Your task to perform on an android device: manage bookmarks in the chrome app Image 0: 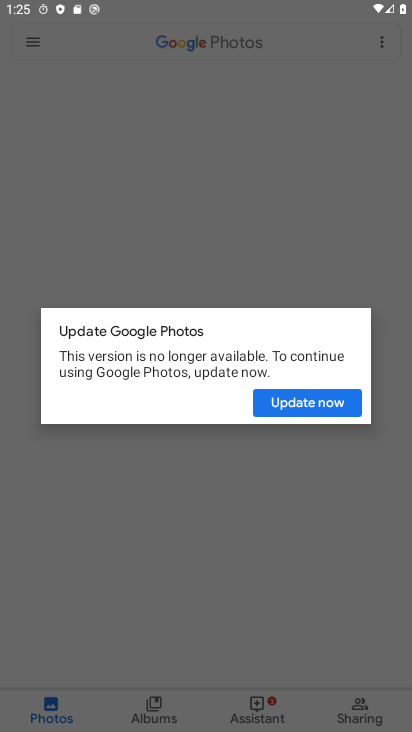
Step 0: press home button
Your task to perform on an android device: manage bookmarks in the chrome app Image 1: 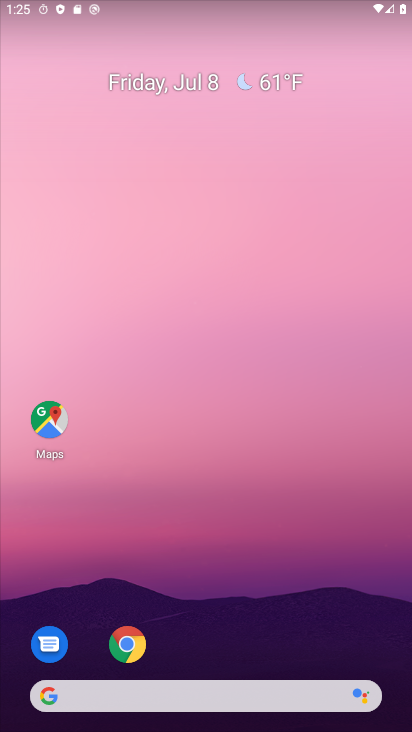
Step 1: click (136, 645)
Your task to perform on an android device: manage bookmarks in the chrome app Image 2: 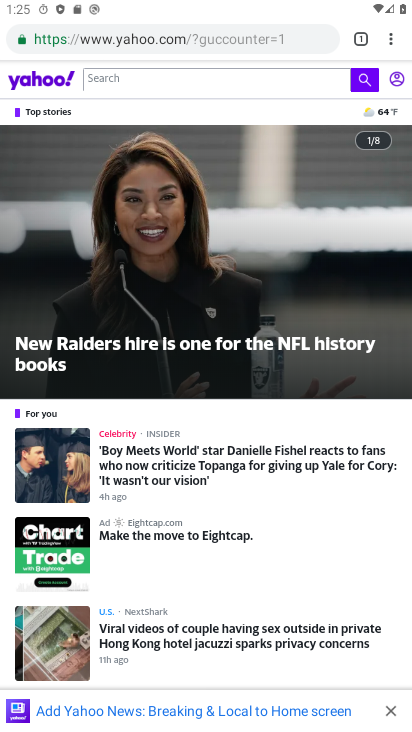
Step 2: click (391, 41)
Your task to perform on an android device: manage bookmarks in the chrome app Image 3: 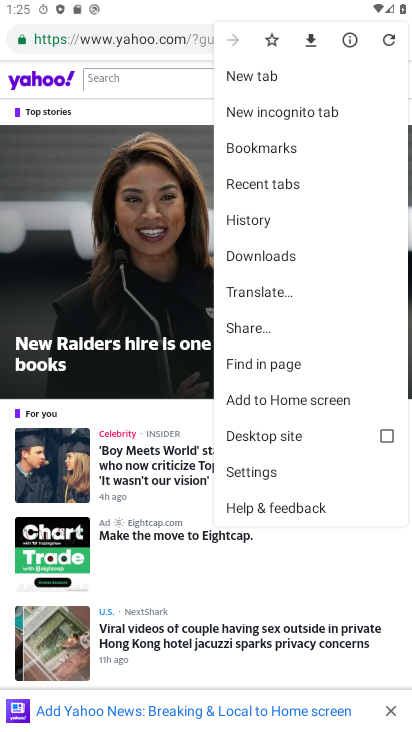
Step 3: click (265, 473)
Your task to perform on an android device: manage bookmarks in the chrome app Image 4: 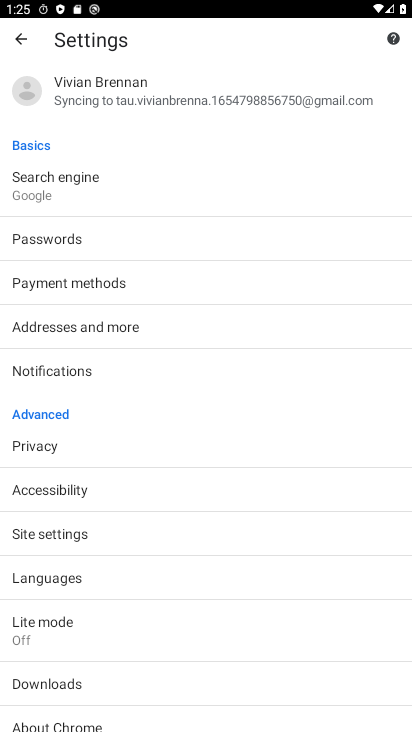
Step 4: click (22, 40)
Your task to perform on an android device: manage bookmarks in the chrome app Image 5: 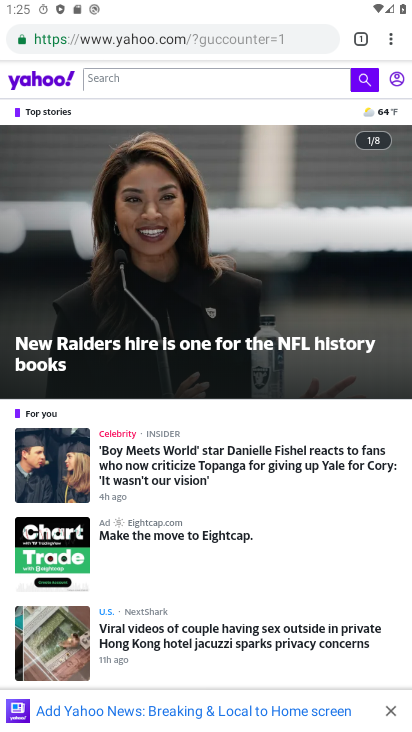
Step 5: click (391, 35)
Your task to perform on an android device: manage bookmarks in the chrome app Image 6: 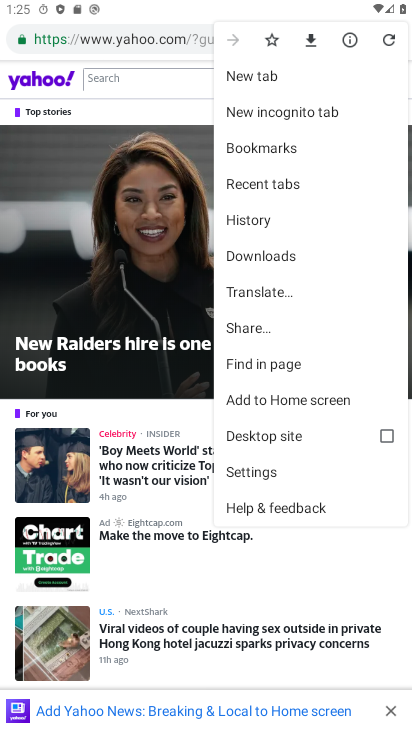
Step 6: click (304, 151)
Your task to perform on an android device: manage bookmarks in the chrome app Image 7: 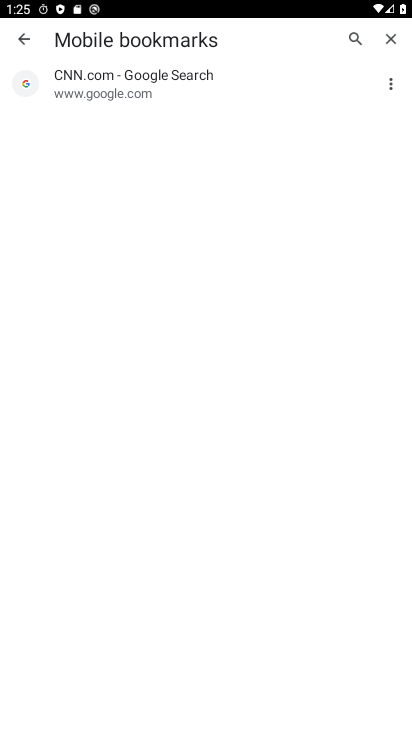
Step 7: click (391, 83)
Your task to perform on an android device: manage bookmarks in the chrome app Image 8: 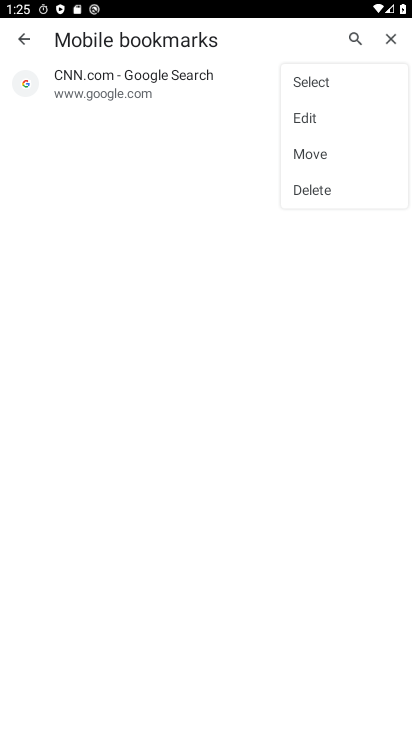
Step 8: click (321, 122)
Your task to perform on an android device: manage bookmarks in the chrome app Image 9: 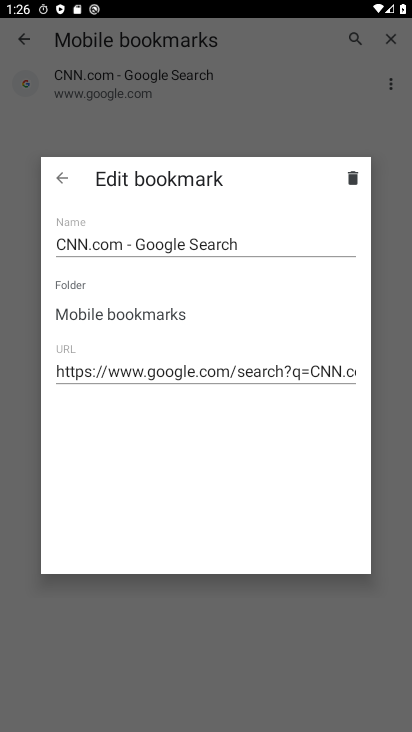
Step 9: click (253, 240)
Your task to perform on an android device: manage bookmarks in the chrome app Image 10: 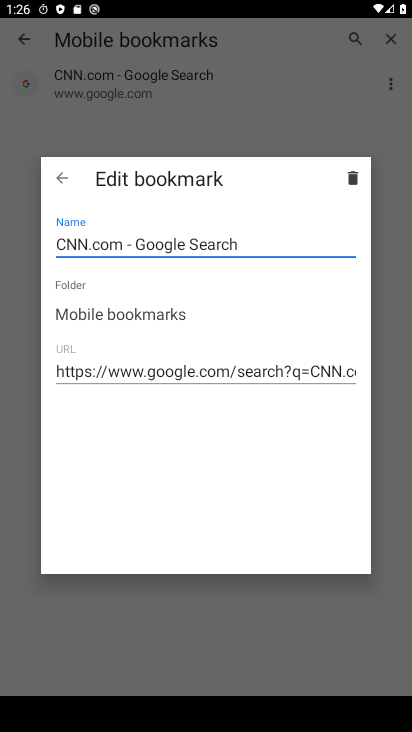
Step 10: click (162, 244)
Your task to perform on an android device: manage bookmarks in the chrome app Image 11: 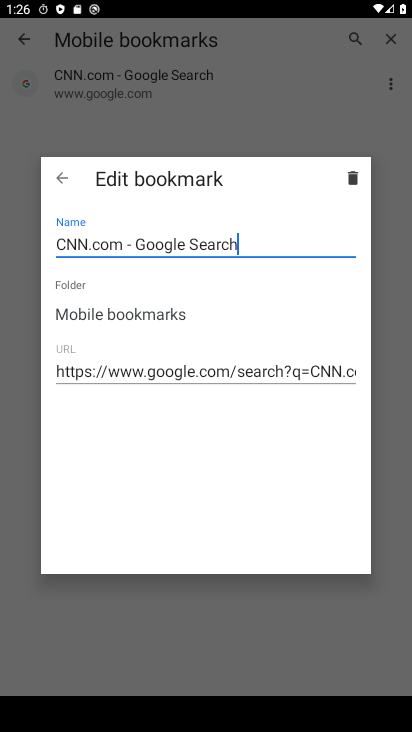
Step 11: click (162, 244)
Your task to perform on an android device: manage bookmarks in the chrome app Image 12: 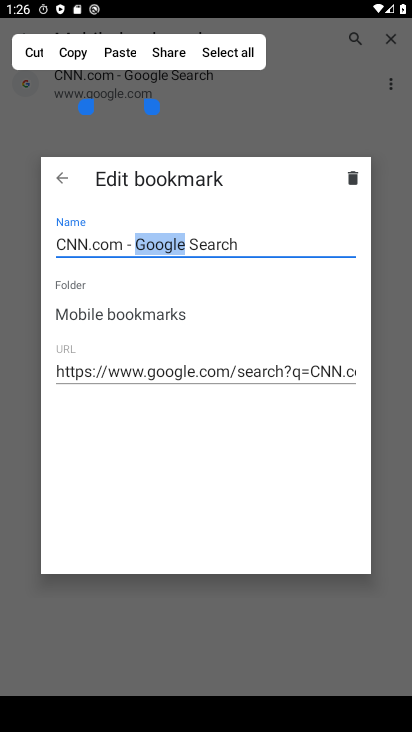
Step 12: click (162, 244)
Your task to perform on an android device: manage bookmarks in the chrome app Image 13: 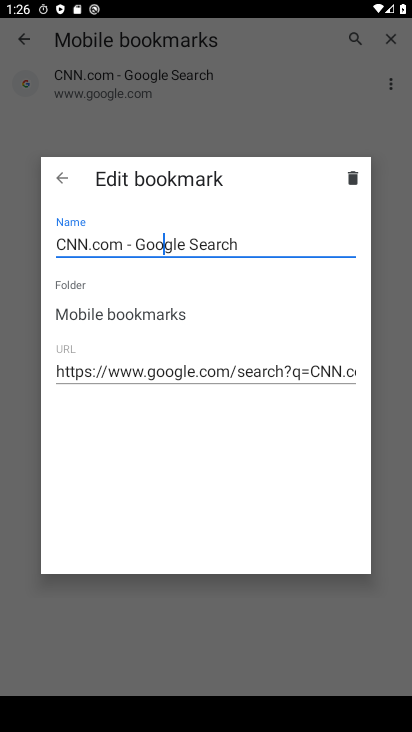
Step 13: click (235, 244)
Your task to perform on an android device: manage bookmarks in the chrome app Image 14: 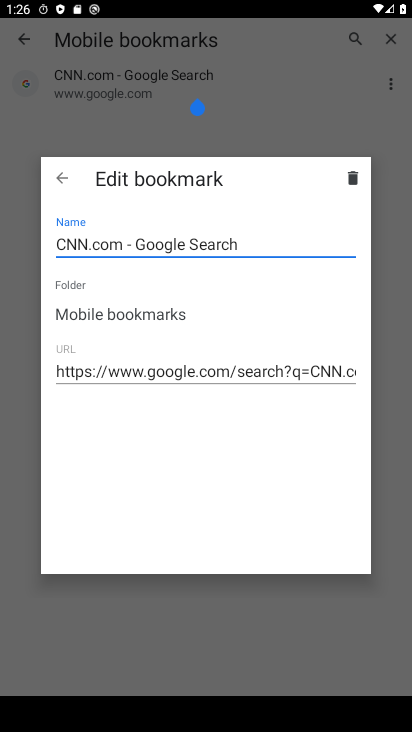
Step 14: click (235, 244)
Your task to perform on an android device: manage bookmarks in the chrome app Image 15: 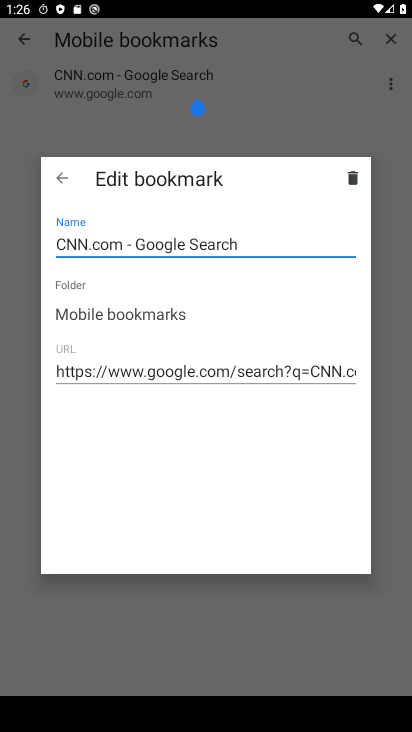
Step 15: click (235, 244)
Your task to perform on an android device: manage bookmarks in the chrome app Image 16: 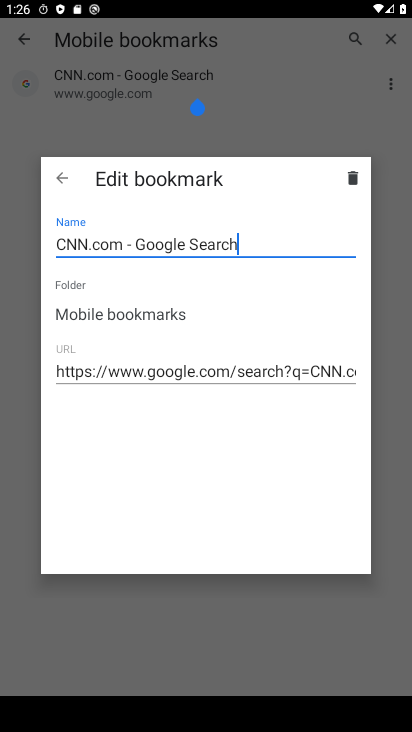
Step 16: click (235, 244)
Your task to perform on an android device: manage bookmarks in the chrome app Image 17: 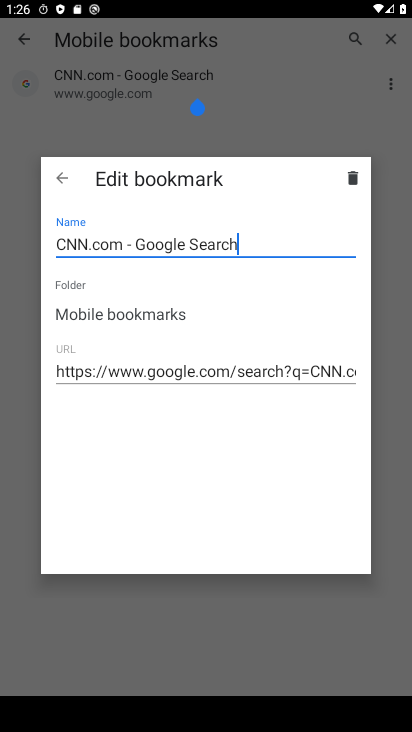
Step 17: click (235, 244)
Your task to perform on an android device: manage bookmarks in the chrome app Image 18: 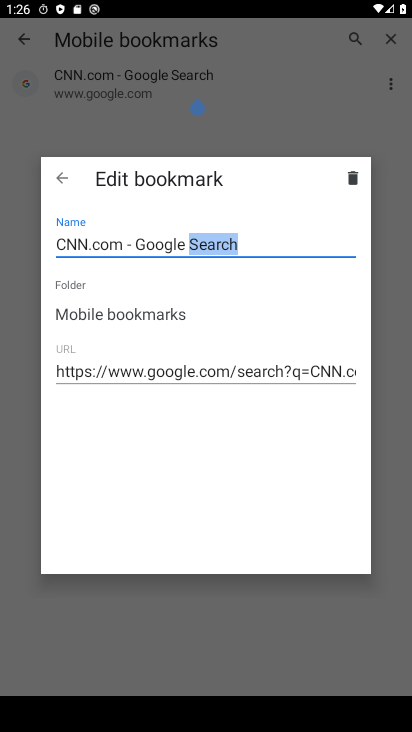
Step 18: click (235, 244)
Your task to perform on an android device: manage bookmarks in the chrome app Image 19: 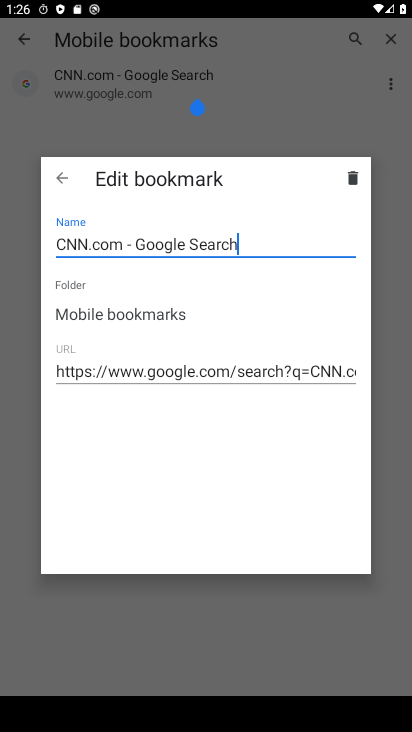
Step 19: click (235, 244)
Your task to perform on an android device: manage bookmarks in the chrome app Image 20: 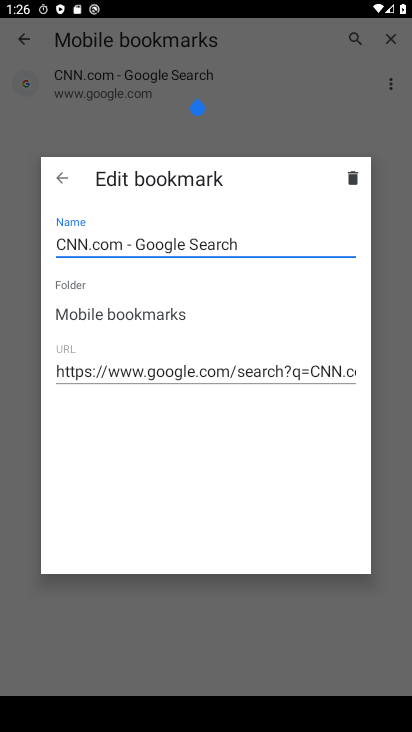
Step 20: click (209, 244)
Your task to perform on an android device: manage bookmarks in the chrome app Image 21: 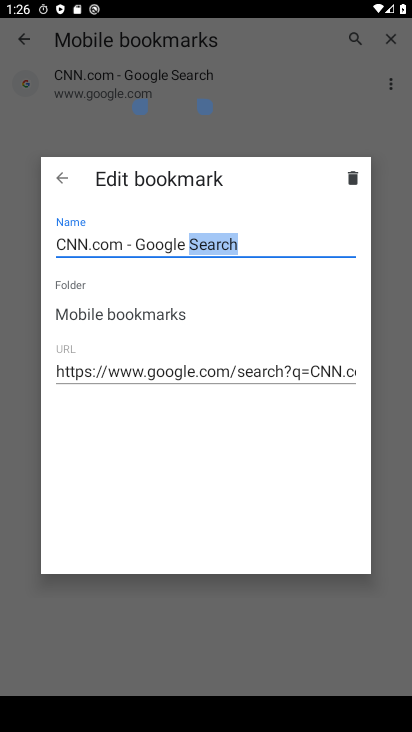
Step 21: click (209, 244)
Your task to perform on an android device: manage bookmarks in the chrome app Image 22: 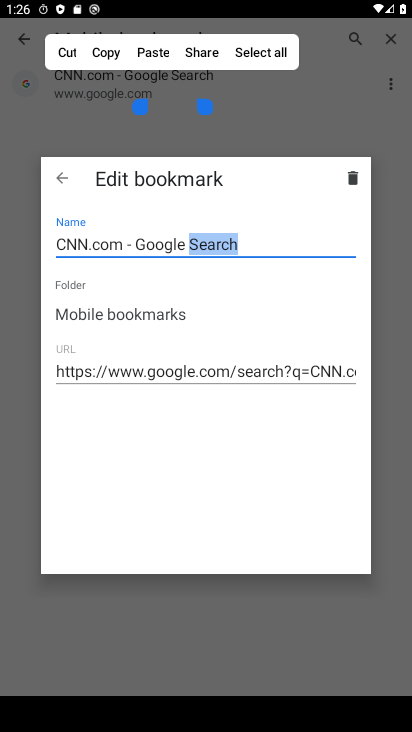
Step 22: click (209, 244)
Your task to perform on an android device: manage bookmarks in the chrome app Image 23: 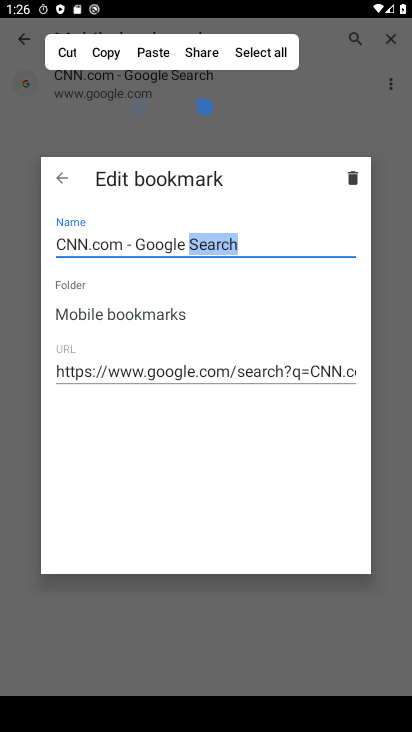
Step 23: click (209, 244)
Your task to perform on an android device: manage bookmarks in the chrome app Image 24: 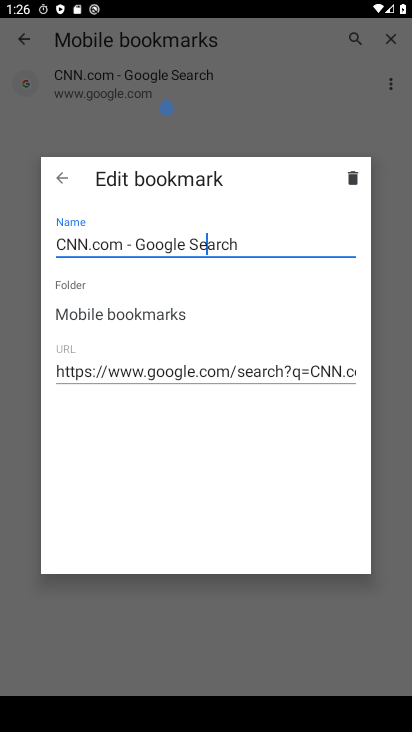
Step 24: click (65, 186)
Your task to perform on an android device: manage bookmarks in the chrome app Image 25: 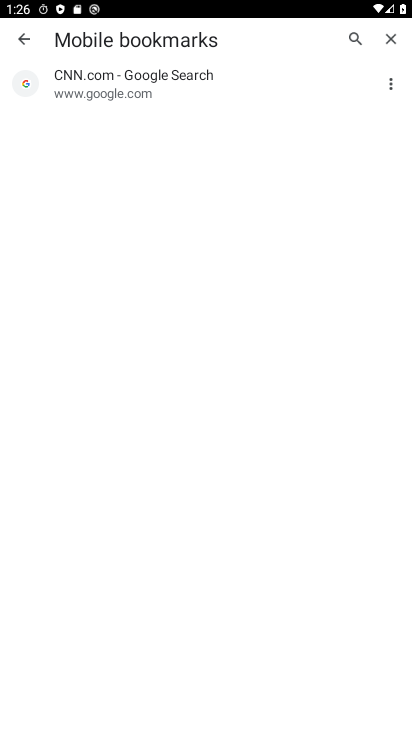
Step 25: click (394, 89)
Your task to perform on an android device: manage bookmarks in the chrome app Image 26: 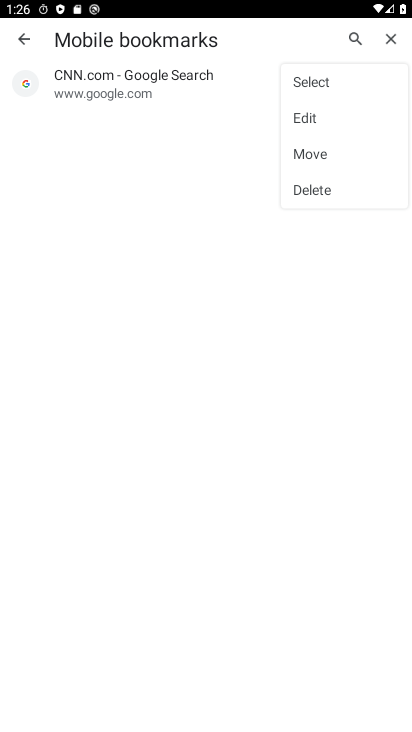
Step 26: click (326, 190)
Your task to perform on an android device: manage bookmarks in the chrome app Image 27: 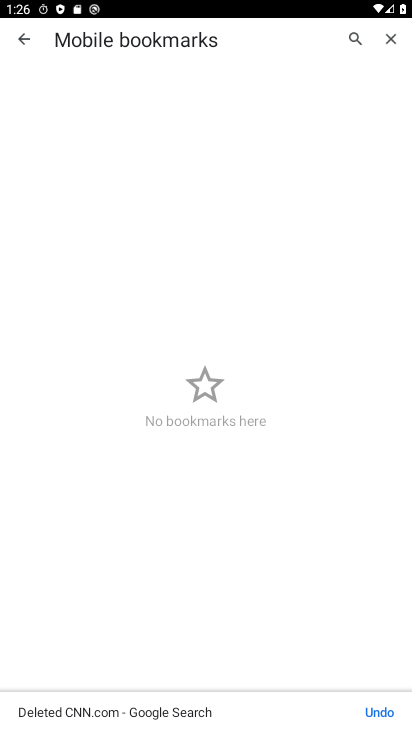
Step 27: task complete